Your task to perform on an android device: turn off smart reply in the gmail app Image 0: 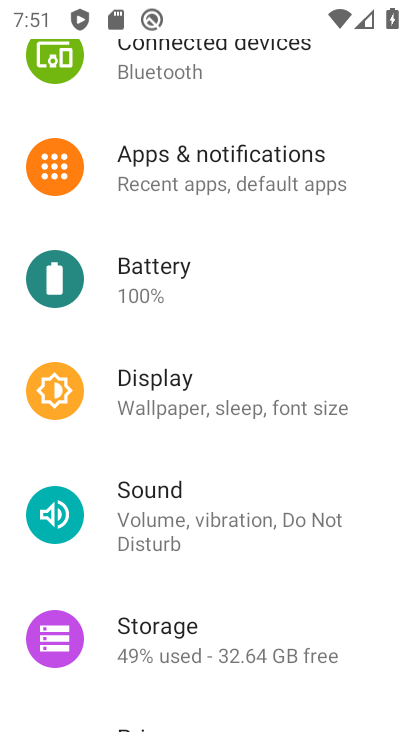
Step 0: press home button
Your task to perform on an android device: turn off smart reply in the gmail app Image 1: 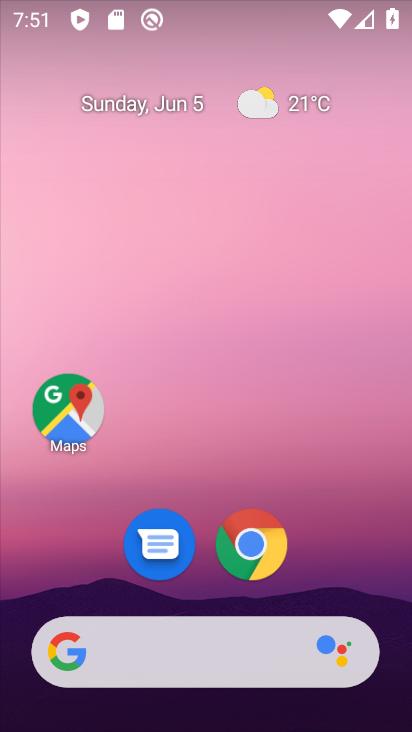
Step 1: drag from (392, 702) to (370, 190)
Your task to perform on an android device: turn off smart reply in the gmail app Image 2: 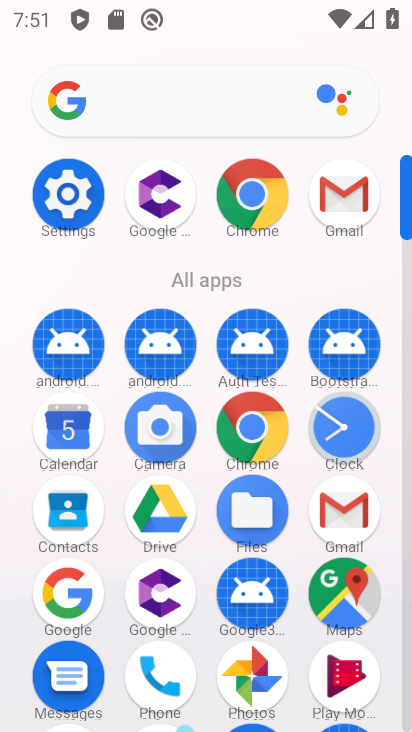
Step 2: click (335, 513)
Your task to perform on an android device: turn off smart reply in the gmail app Image 3: 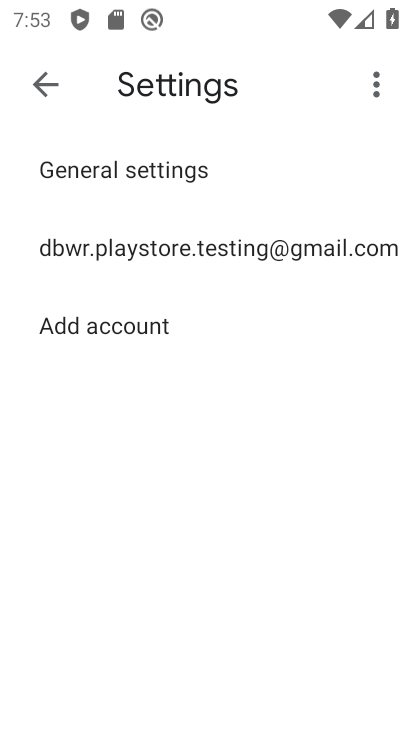
Step 3: click (89, 241)
Your task to perform on an android device: turn off smart reply in the gmail app Image 4: 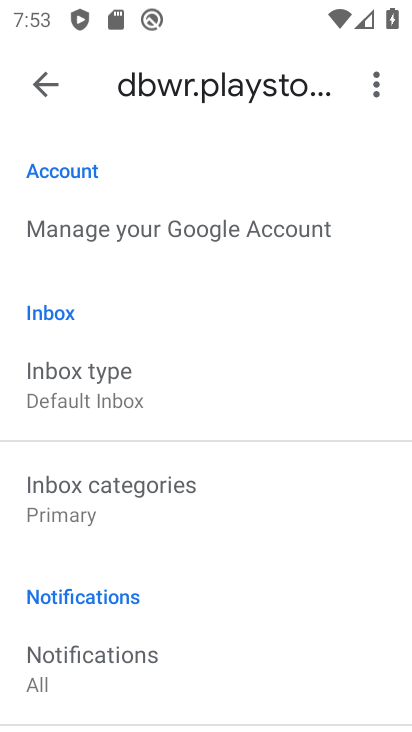
Step 4: drag from (210, 658) to (178, 142)
Your task to perform on an android device: turn off smart reply in the gmail app Image 5: 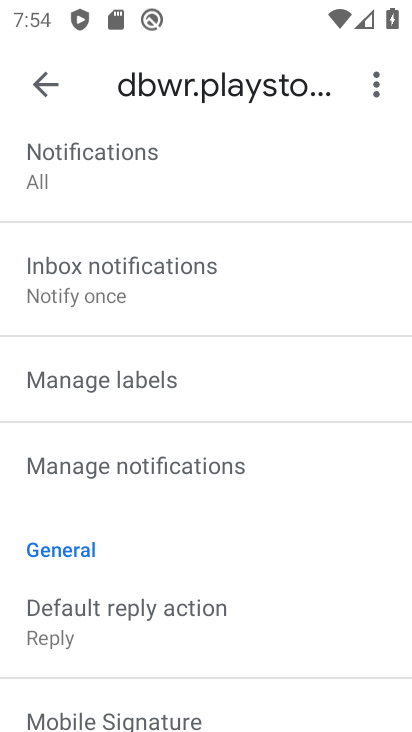
Step 5: drag from (230, 662) to (223, 343)
Your task to perform on an android device: turn off smart reply in the gmail app Image 6: 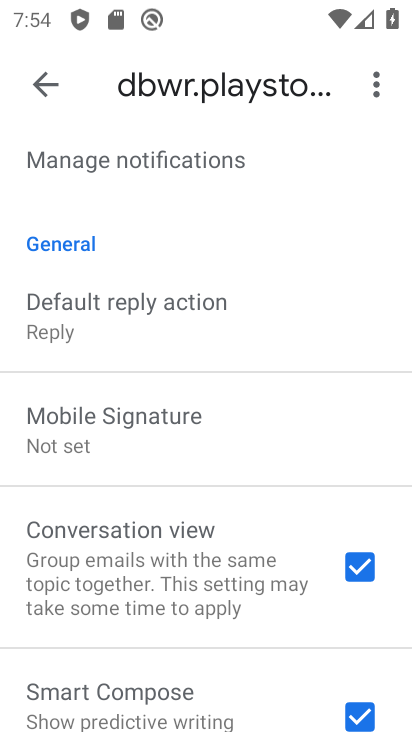
Step 6: drag from (253, 645) to (216, 345)
Your task to perform on an android device: turn off smart reply in the gmail app Image 7: 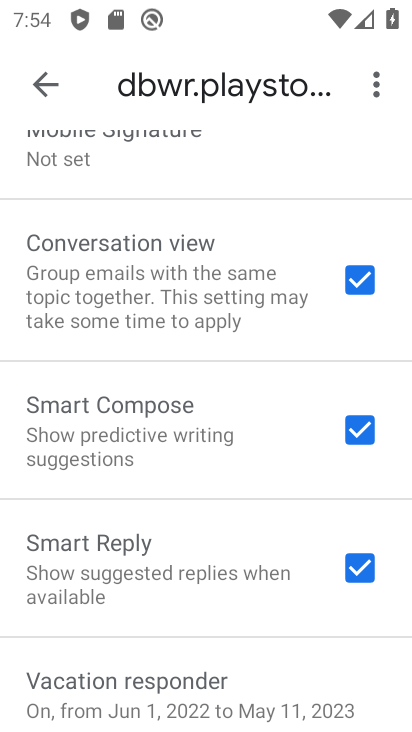
Step 7: click (365, 574)
Your task to perform on an android device: turn off smart reply in the gmail app Image 8: 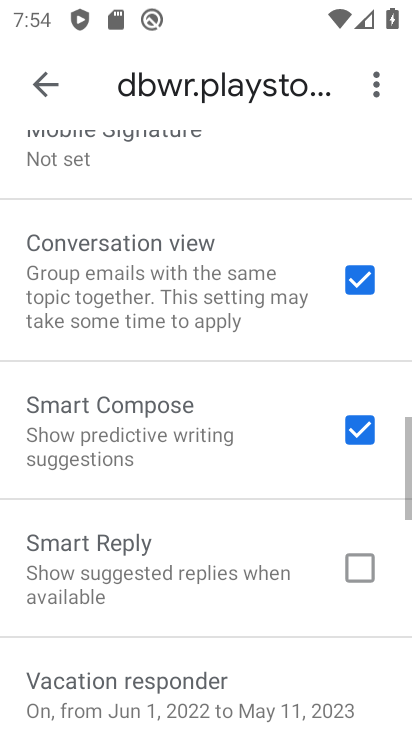
Step 8: task complete